Your task to perform on an android device: turn on notifications settings in the gmail app Image 0: 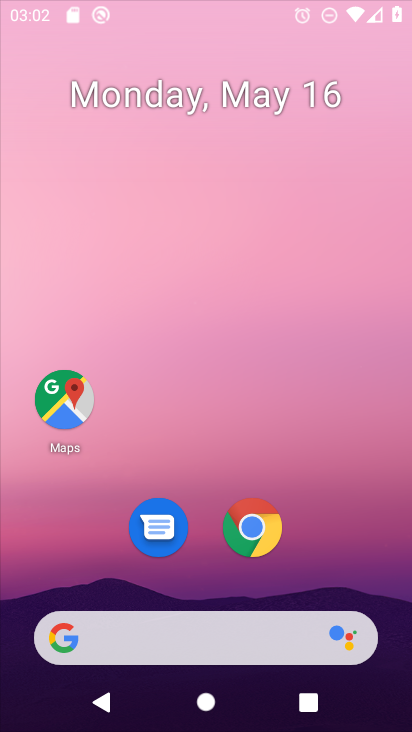
Step 0: drag from (336, 555) to (393, 68)
Your task to perform on an android device: turn on notifications settings in the gmail app Image 1: 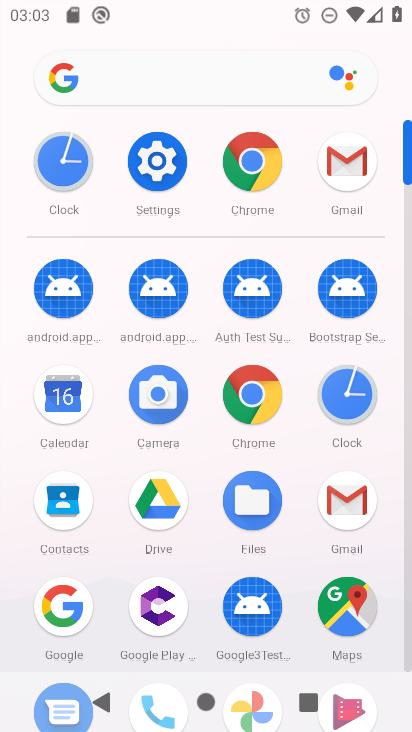
Step 1: click (361, 538)
Your task to perform on an android device: turn on notifications settings in the gmail app Image 2: 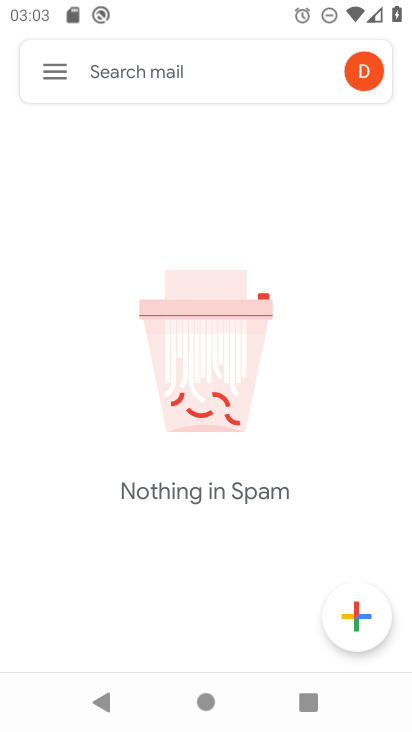
Step 2: click (45, 44)
Your task to perform on an android device: turn on notifications settings in the gmail app Image 3: 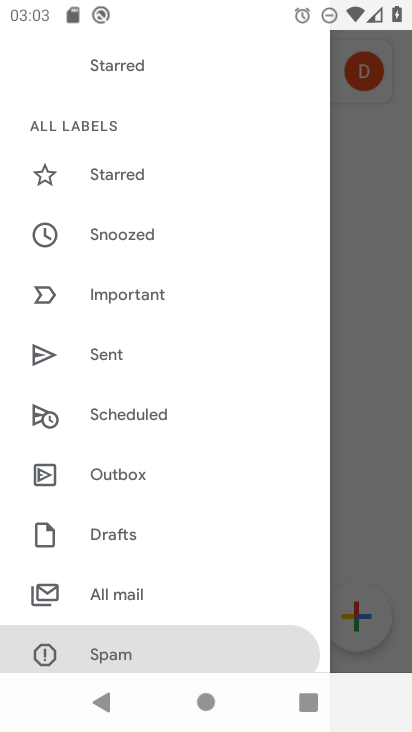
Step 3: drag from (118, 592) to (145, 389)
Your task to perform on an android device: turn on notifications settings in the gmail app Image 4: 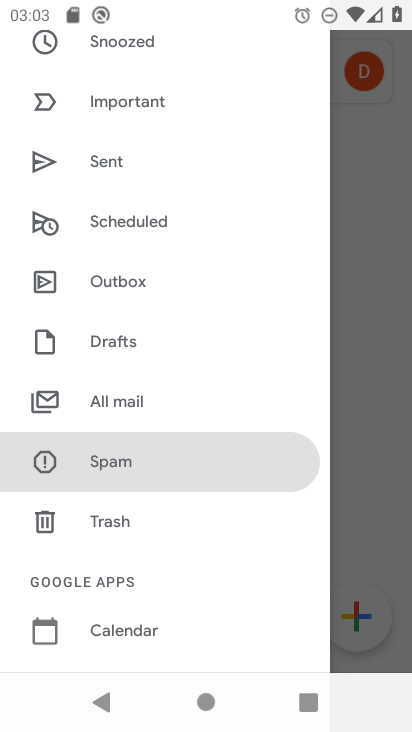
Step 4: drag from (132, 598) to (195, 305)
Your task to perform on an android device: turn on notifications settings in the gmail app Image 5: 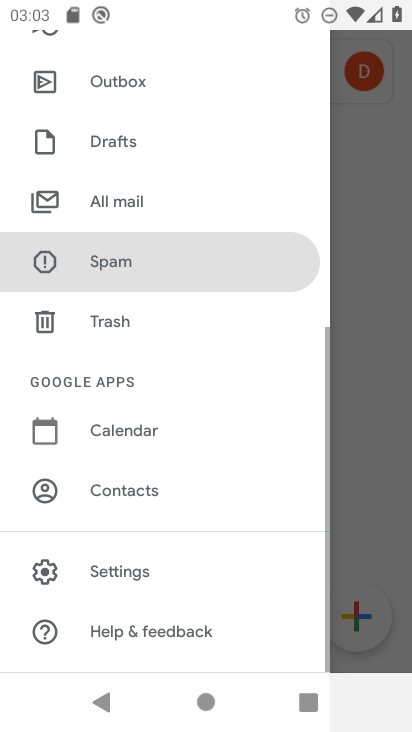
Step 5: click (170, 581)
Your task to perform on an android device: turn on notifications settings in the gmail app Image 6: 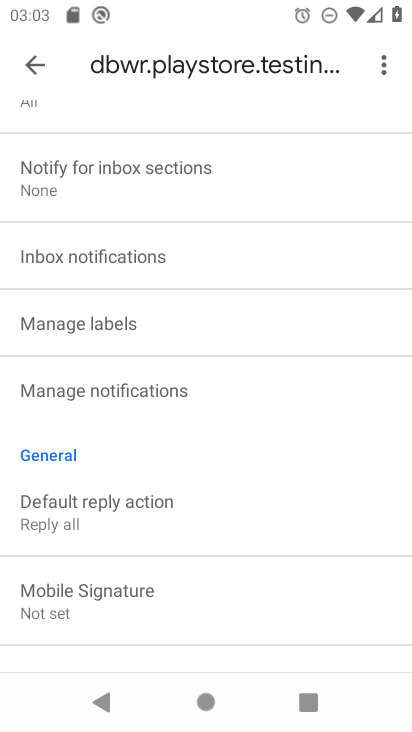
Step 6: click (197, 401)
Your task to perform on an android device: turn on notifications settings in the gmail app Image 7: 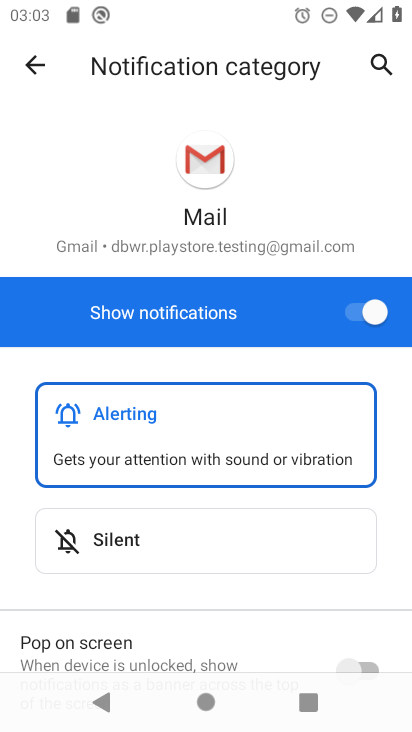
Step 7: task complete